Your task to perform on an android device: turn notification dots on Image 0: 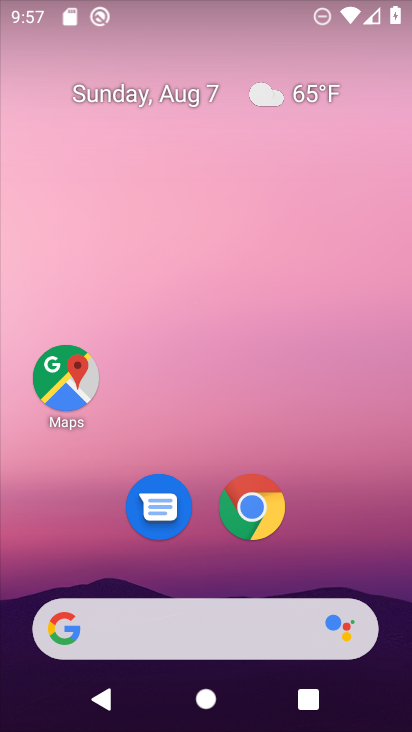
Step 0: drag from (348, 516) to (268, 71)
Your task to perform on an android device: turn notification dots on Image 1: 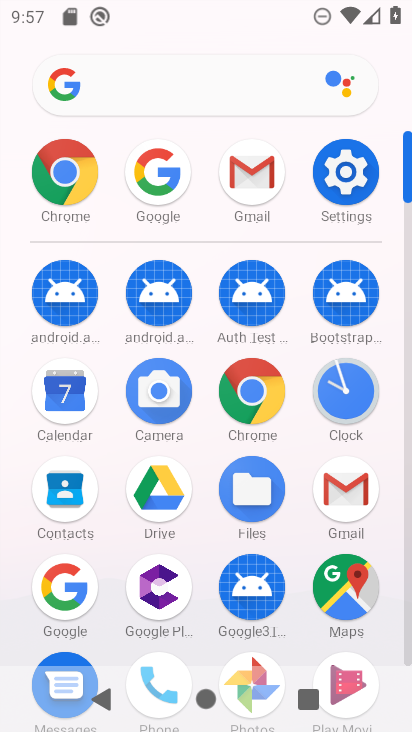
Step 1: click (357, 162)
Your task to perform on an android device: turn notification dots on Image 2: 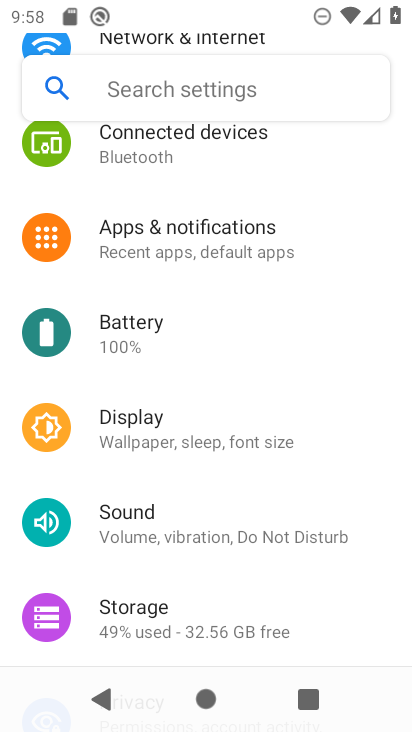
Step 2: click (136, 242)
Your task to perform on an android device: turn notification dots on Image 3: 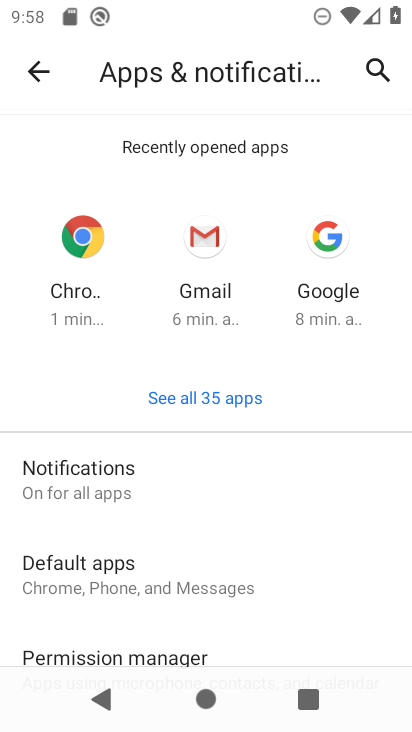
Step 3: click (91, 477)
Your task to perform on an android device: turn notification dots on Image 4: 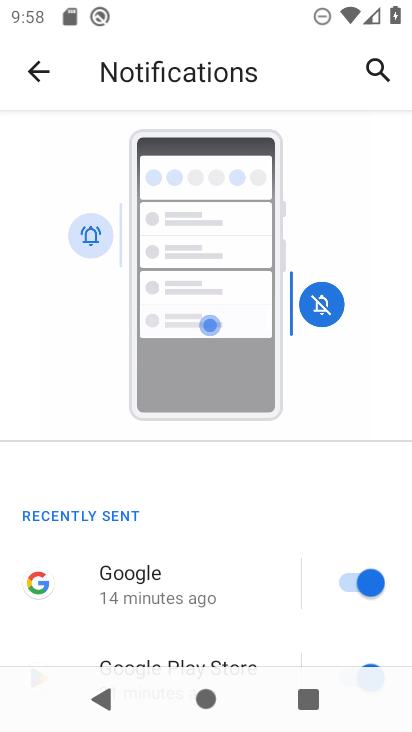
Step 4: drag from (260, 505) to (303, 75)
Your task to perform on an android device: turn notification dots on Image 5: 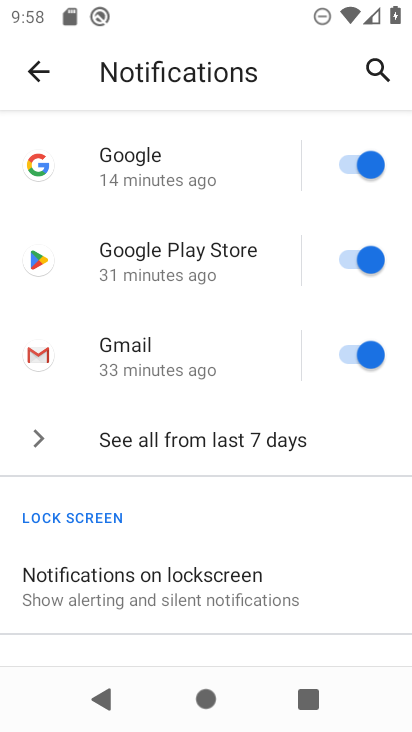
Step 5: drag from (289, 581) to (257, 187)
Your task to perform on an android device: turn notification dots on Image 6: 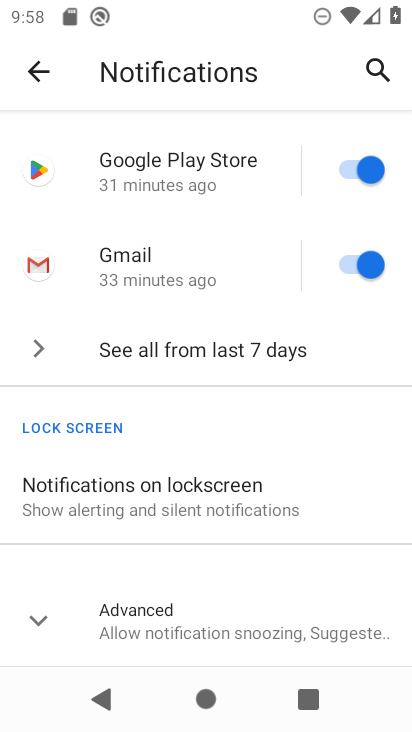
Step 6: click (147, 624)
Your task to perform on an android device: turn notification dots on Image 7: 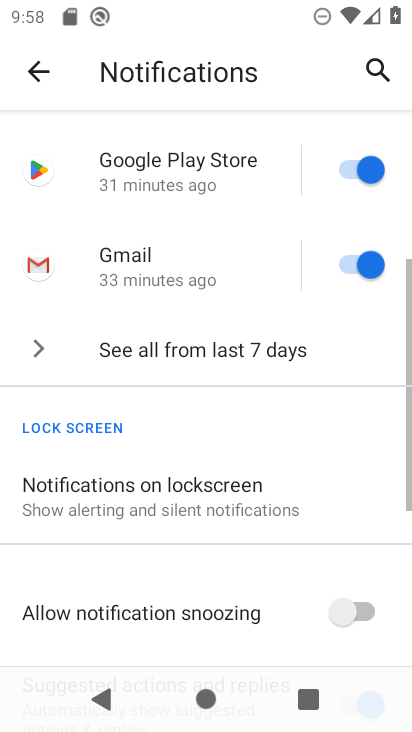
Step 7: task complete